Your task to perform on an android device: Do I have any events today? Image 0: 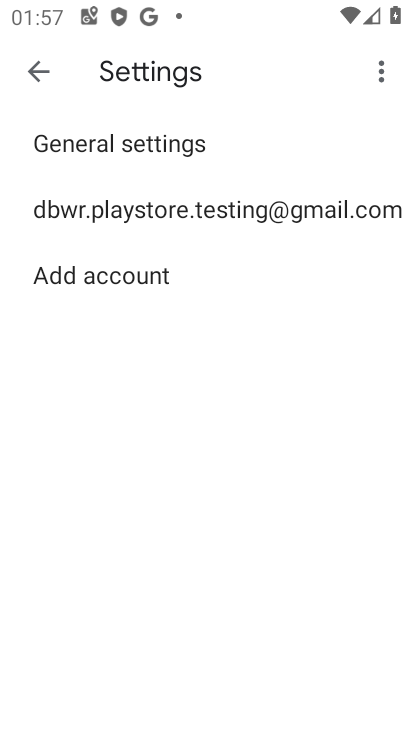
Step 0: press home button
Your task to perform on an android device: Do I have any events today? Image 1: 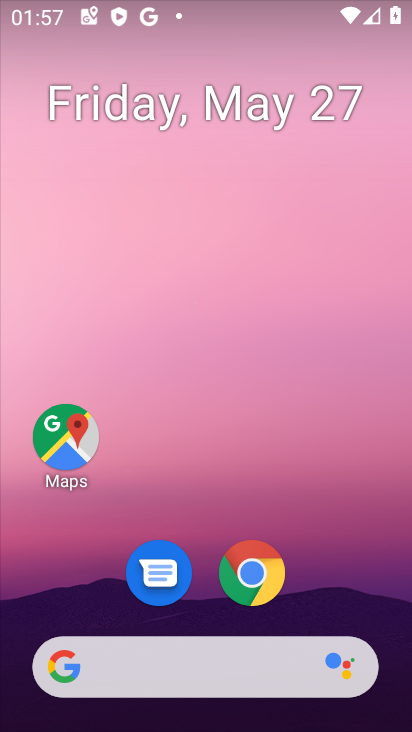
Step 1: drag from (205, 615) to (146, 97)
Your task to perform on an android device: Do I have any events today? Image 2: 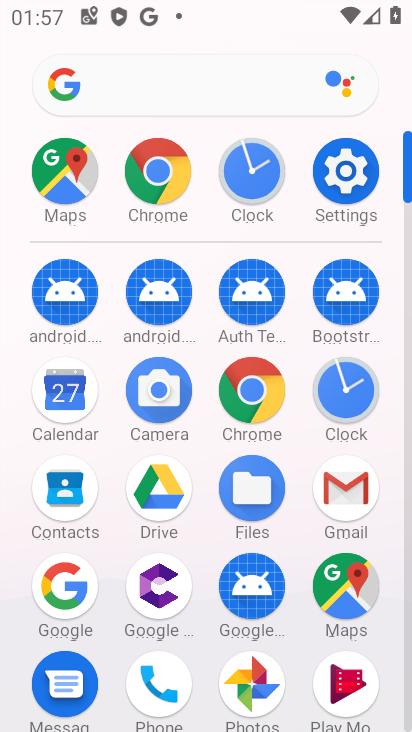
Step 2: click (76, 401)
Your task to perform on an android device: Do I have any events today? Image 3: 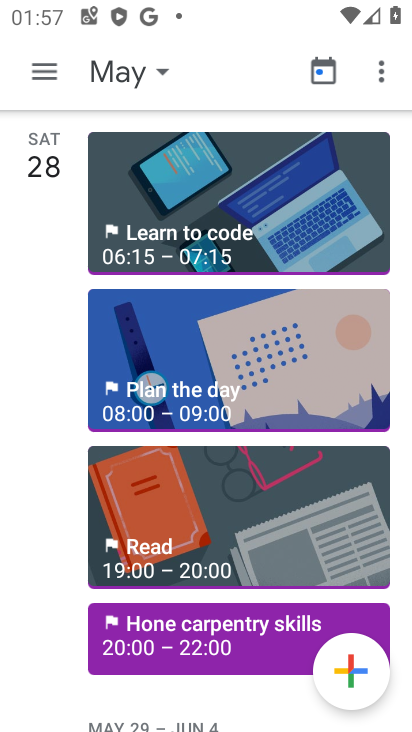
Step 3: click (44, 64)
Your task to perform on an android device: Do I have any events today? Image 4: 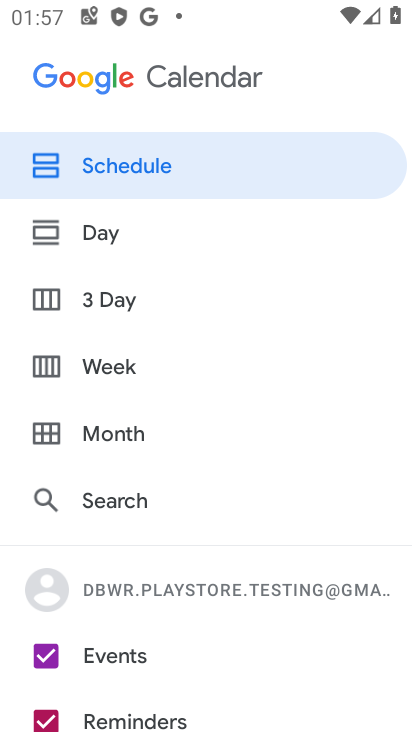
Step 4: click (44, 64)
Your task to perform on an android device: Do I have any events today? Image 5: 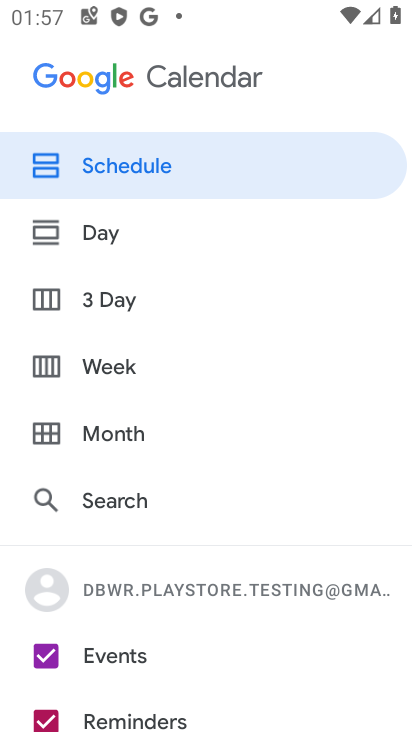
Step 5: click (80, 223)
Your task to perform on an android device: Do I have any events today? Image 6: 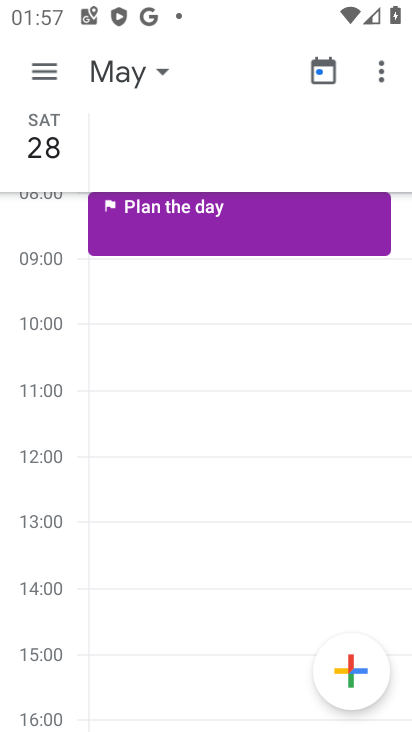
Step 6: task complete